Your task to perform on an android device: turn on improve location accuracy Image 0: 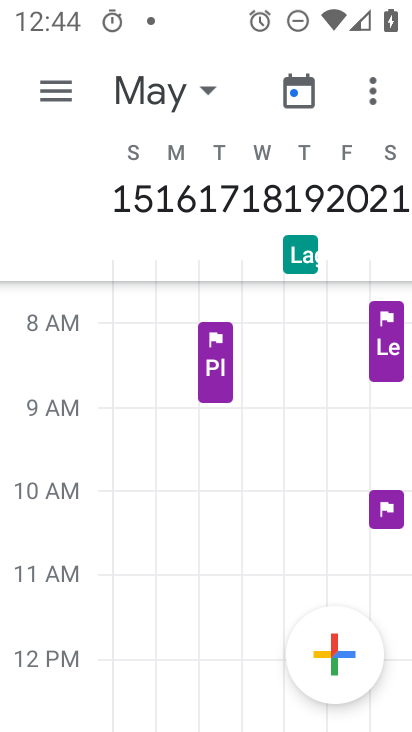
Step 0: press home button
Your task to perform on an android device: turn on improve location accuracy Image 1: 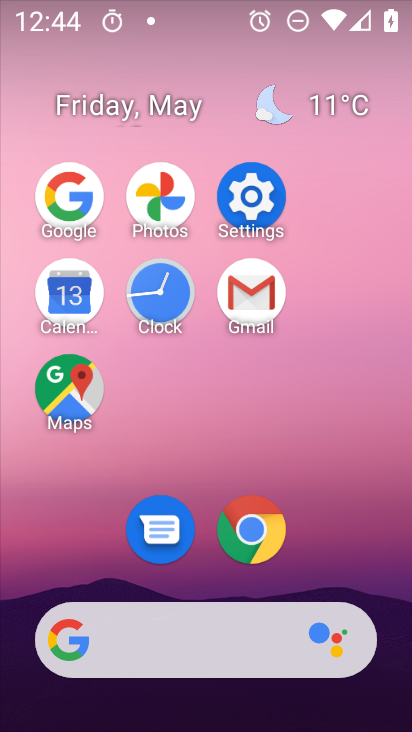
Step 1: click (259, 200)
Your task to perform on an android device: turn on improve location accuracy Image 2: 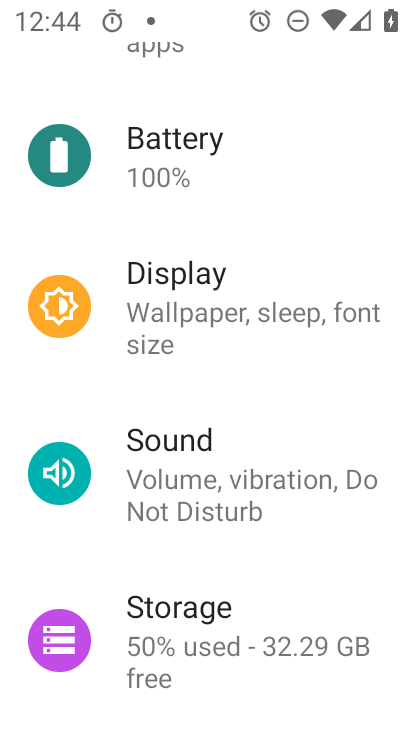
Step 2: drag from (274, 593) to (295, 213)
Your task to perform on an android device: turn on improve location accuracy Image 3: 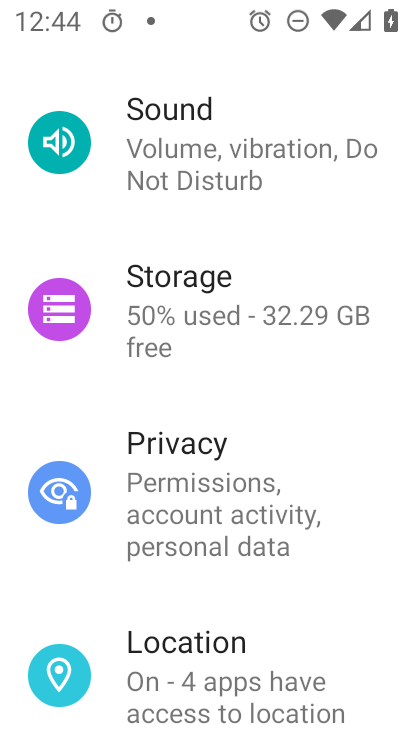
Step 3: drag from (260, 568) to (279, 236)
Your task to perform on an android device: turn on improve location accuracy Image 4: 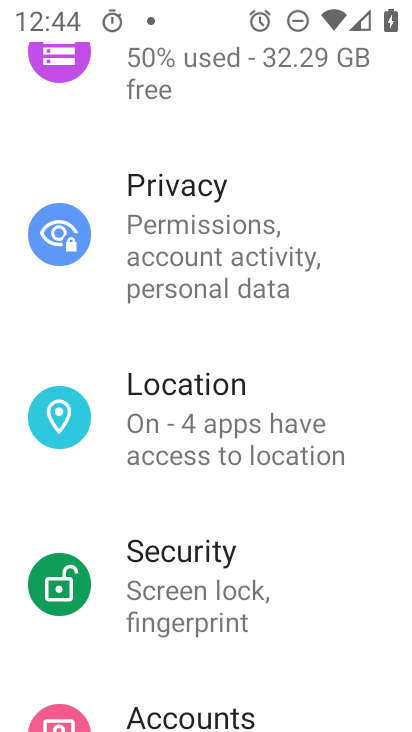
Step 4: click (250, 407)
Your task to perform on an android device: turn on improve location accuracy Image 5: 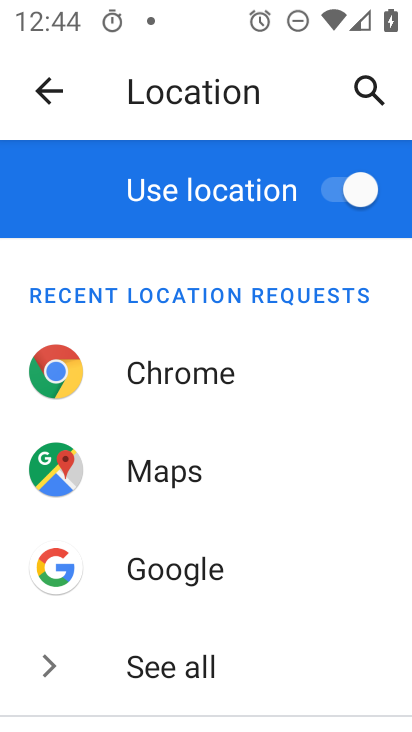
Step 5: drag from (280, 573) to (316, 234)
Your task to perform on an android device: turn on improve location accuracy Image 6: 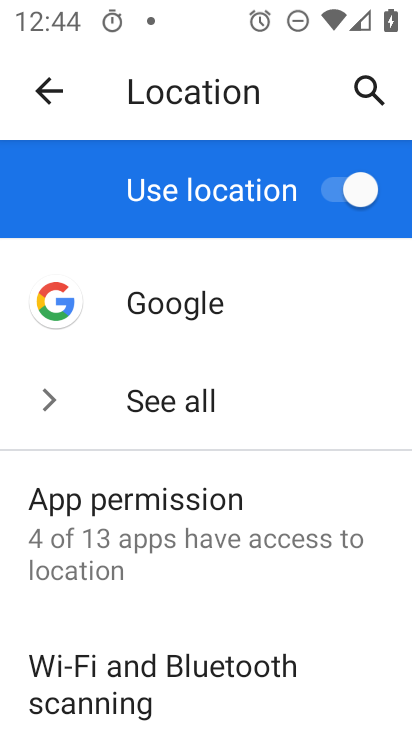
Step 6: drag from (217, 667) to (255, 243)
Your task to perform on an android device: turn on improve location accuracy Image 7: 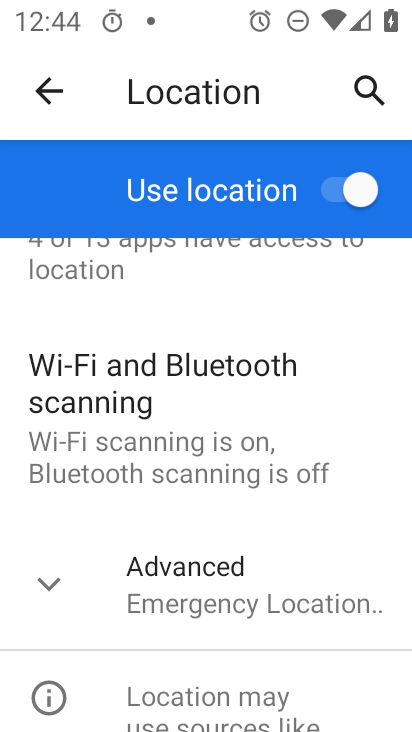
Step 7: click (207, 580)
Your task to perform on an android device: turn on improve location accuracy Image 8: 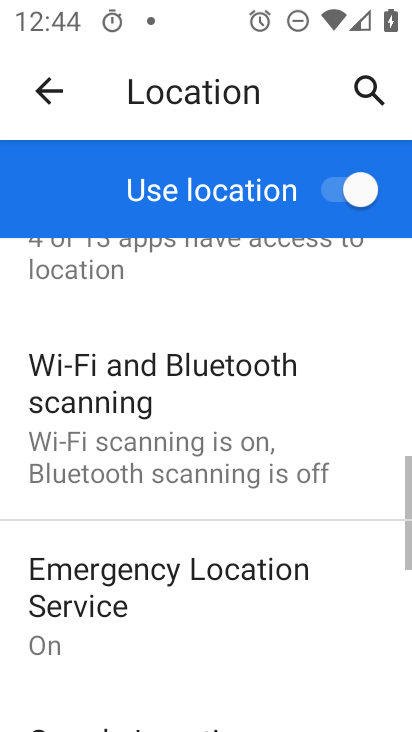
Step 8: task complete